Your task to perform on an android device: choose inbox layout in the gmail app Image 0: 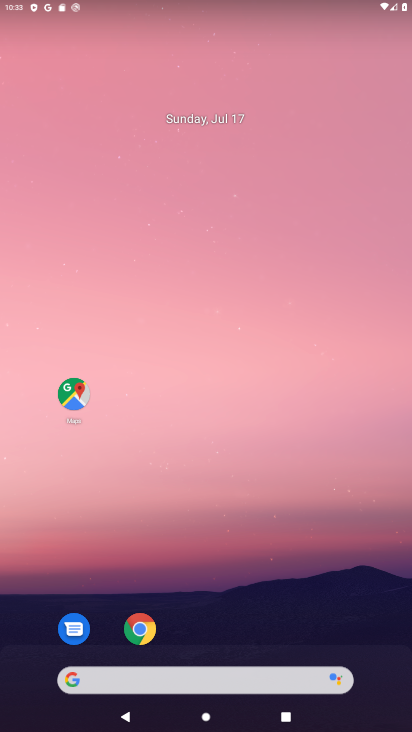
Step 0: drag from (256, 666) to (257, 9)
Your task to perform on an android device: choose inbox layout in the gmail app Image 1: 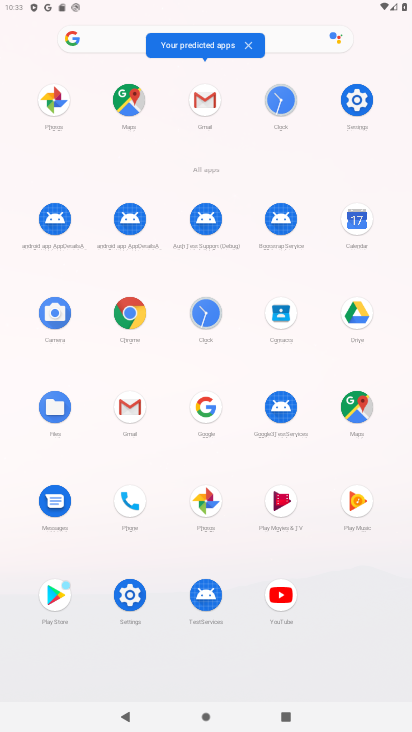
Step 1: click (215, 95)
Your task to perform on an android device: choose inbox layout in the gmail app Image 2: 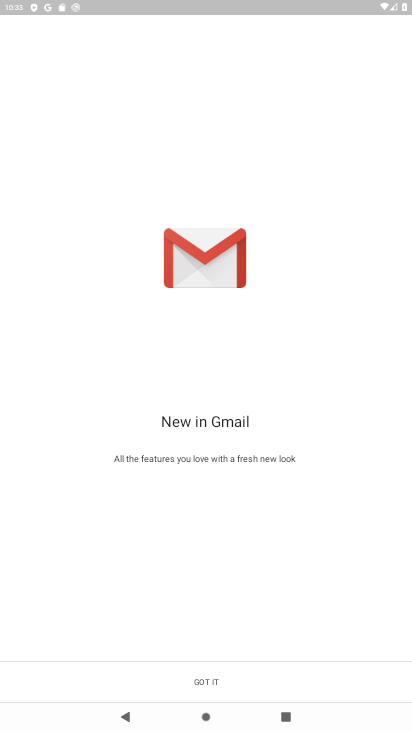
Step 2: click (217, 677)
Your task to perform on an android device: choose inbox layout in the gmail app Image 3: 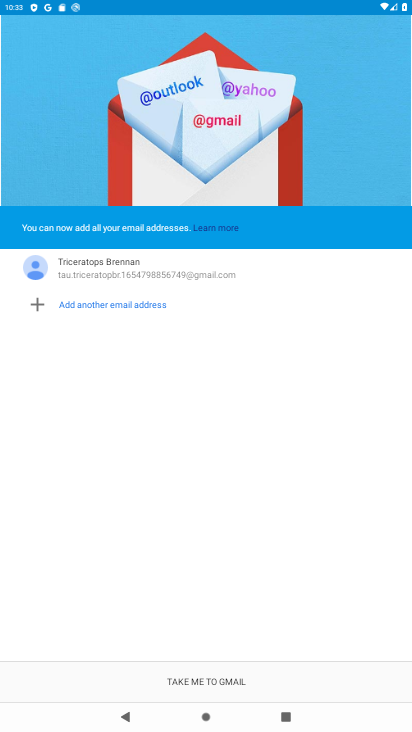
Step 3: click (217, 677)
Your task to perform on an android device: choose inbox layout in the gmail app Image 4: 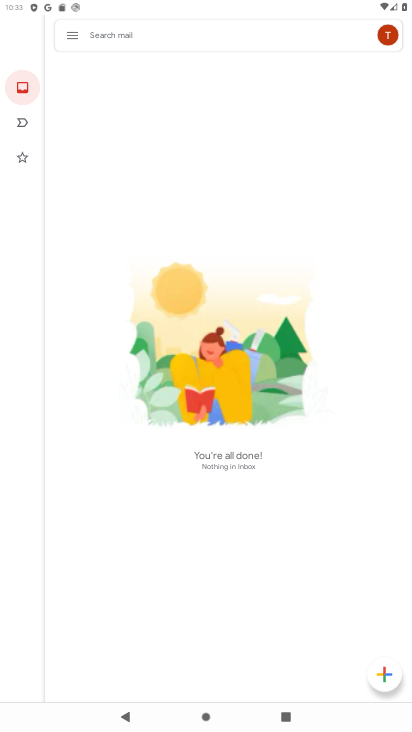
Step 4: click (71, 40)
Your task to perform on an android device: choose inbox layout in the gmail app Image 5: 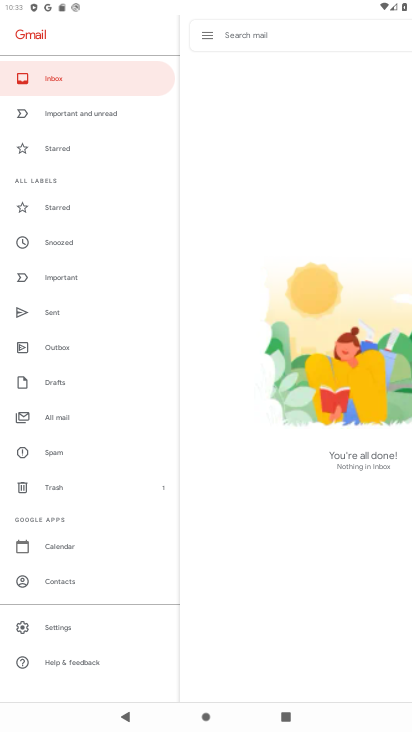
Step 5: click (42, 623)
Your task to perform on an android device: choose inbox layout in the gmail app Image 6: 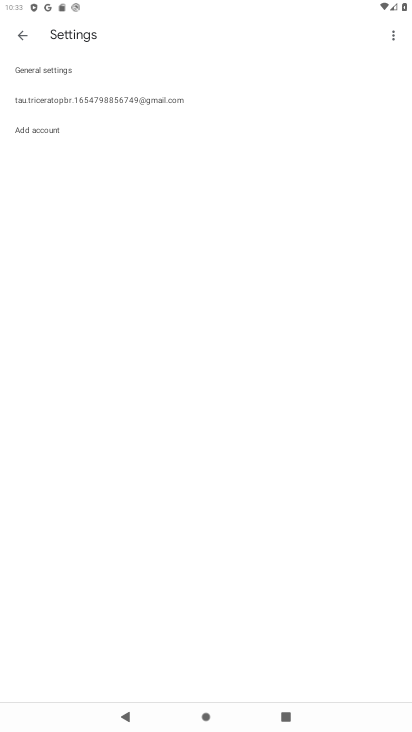
Step 6: click (29, 100)
Your task to perform on an android device: choose inbox layout in the gmail app Image 7: 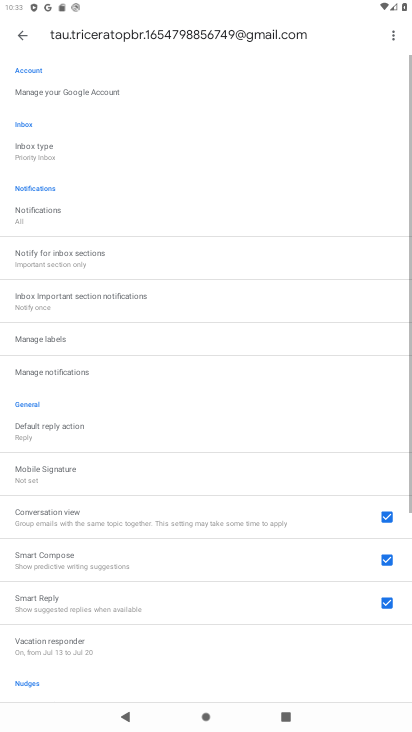
Step 7: click (37, 152)
Your task to perform on an android device: choose inbox layout in the gmail app Image 8: 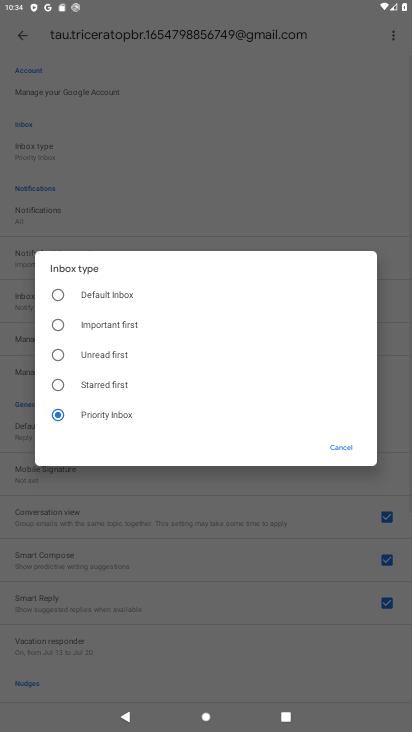
Step 8: click (93, 324)
Your task to perform on an android device: choose inbox layout in the gmail app Image 9: 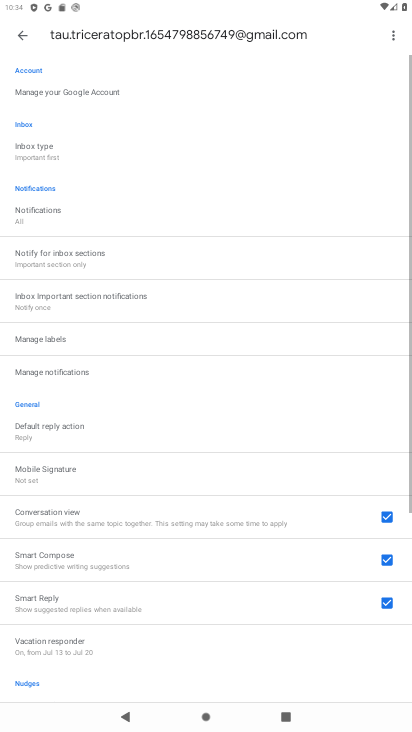
Step 9: task complete